Your task to perform on an android device: turn on showing notifications on the lock screen Image 0: 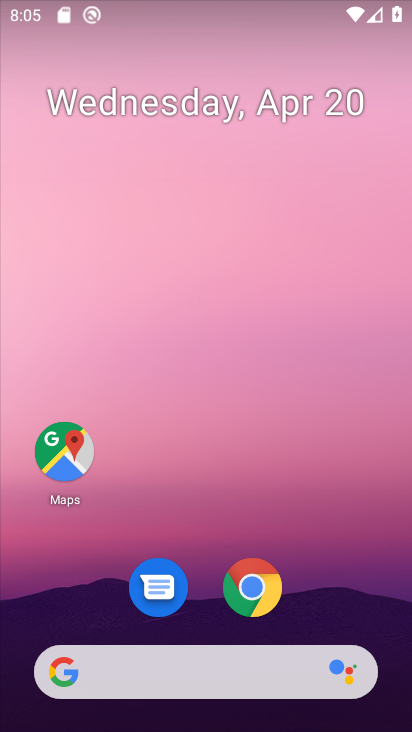
Step 0: drag from (329, 560) to (250, 251)
Your task to perform on an android device: turn on showing notifications on the lock screen Image 1: 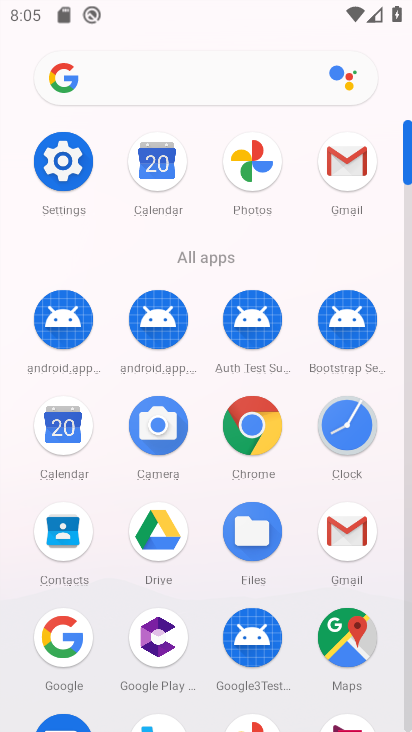
Step 1: click (53, 161)
Your task to perform on an android device: turn on showing notifications on the lock screen Image 2: 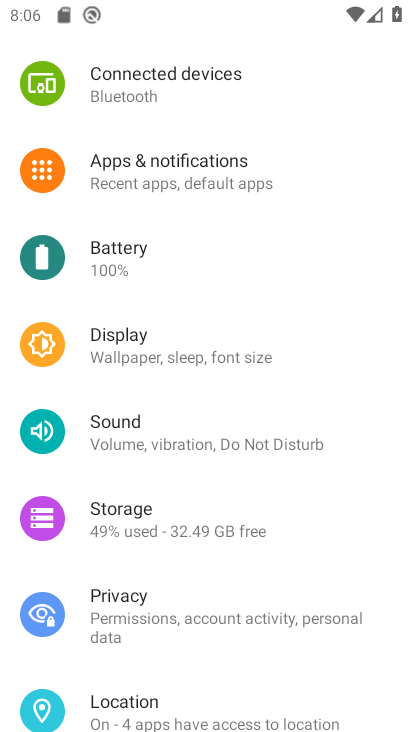
Step 2: click (126, 184)
Your task to perform on an android device: turn on showing notifications on the lock screen Image 3: 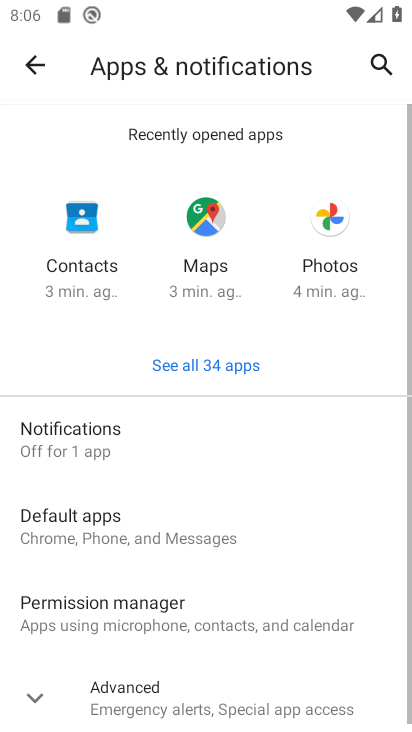
Step 3: click (172, 441)
Your task to perform on an android device: turn on showing notifications on the lock screen Image 4: 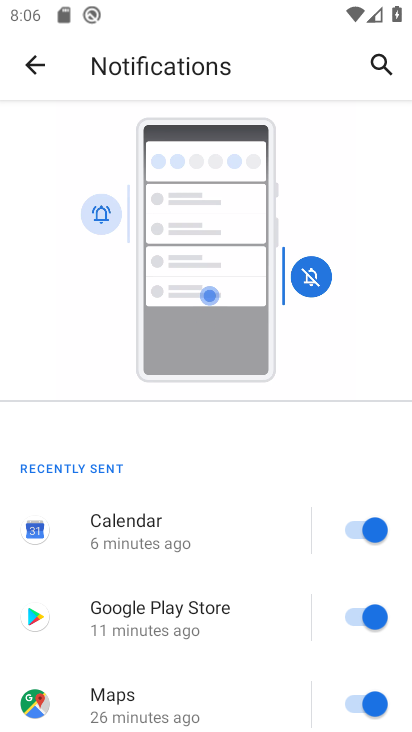
Step 4: drag from (201, 565) to (205, 98)
Your task to perform on an android device: turn on showing notifications on the lock screen Image 5: 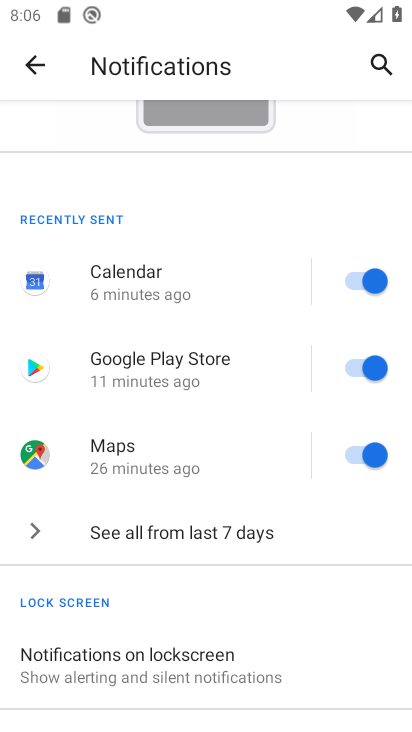
Step 5: click (236, 645)
Your task to perform on an android device: turn on showing notifications on the lock screen Image 6: 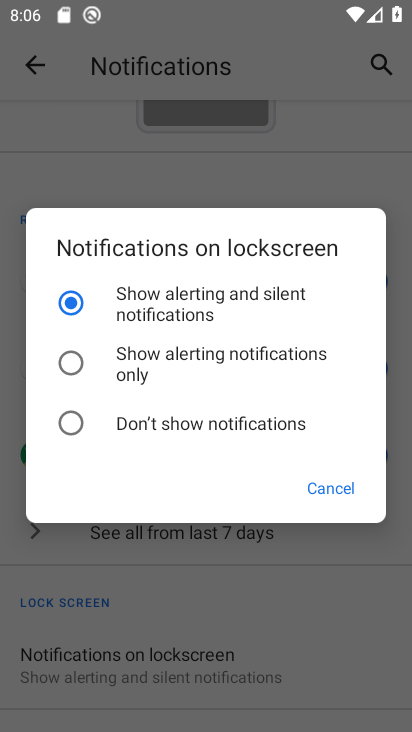
Step 6: click (243, 350)
Your task to perform on an android device: turn on showing notifications on the lock screen Image 7: 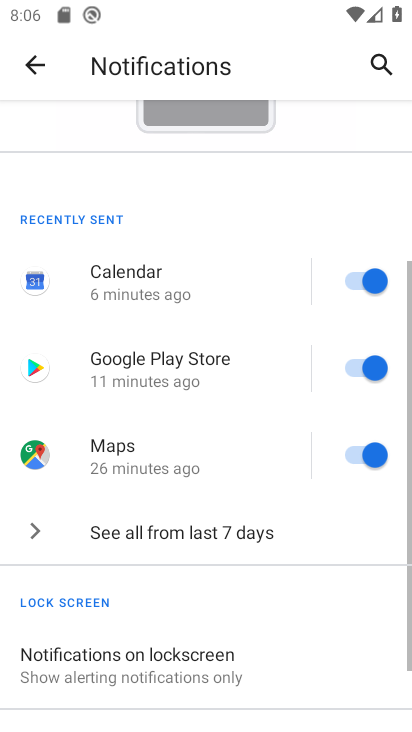
Step 7: task complete